Your task to perform on an android device: Go to Yahoo.com Image 0: 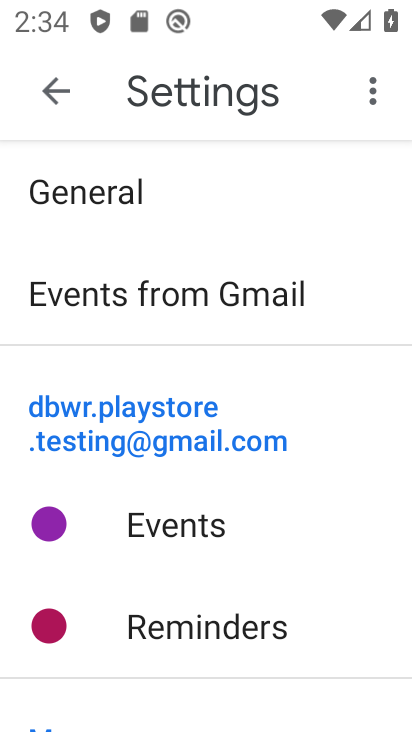
Step 0: press home button
Your task to perform on an android device: Go to Yahoo.com Image 1: 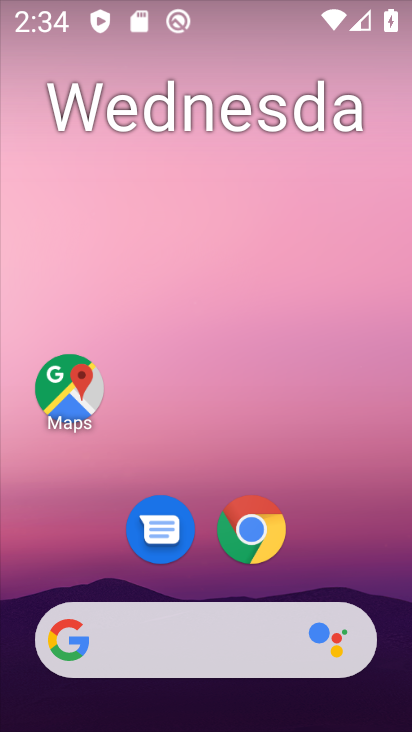
Step 1: click (241, 521)
Your task to perform on an android device: Go to Yahoo.com Image 2: 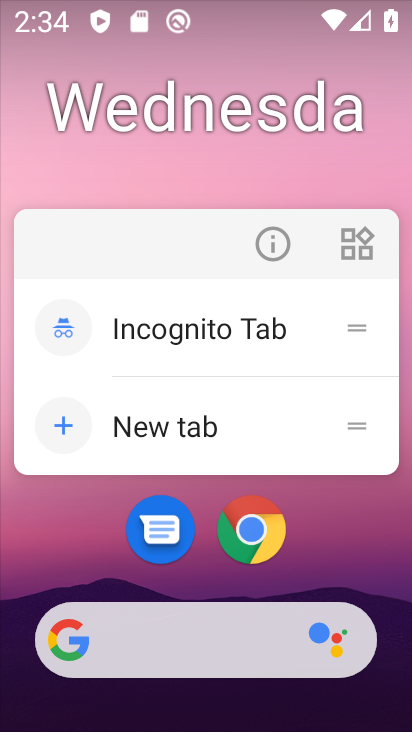
Step 2: click (239, 513)
Your task to perform on an android device: Go to Yahoo.com Image 3: 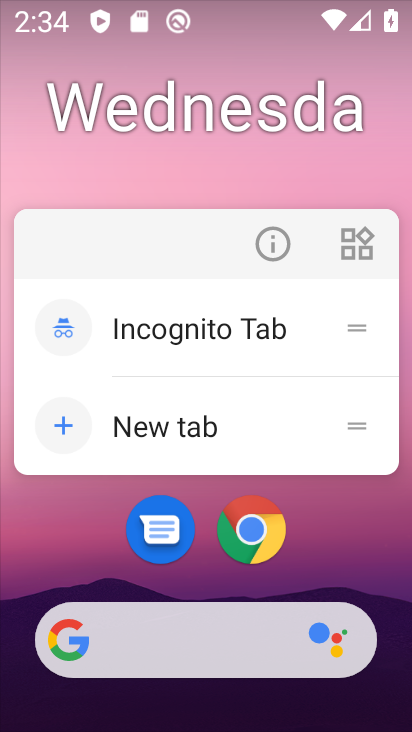
Step 3: click (239, 512)
Your task to perform on an android device: Go to Yahoo.com Image 4: 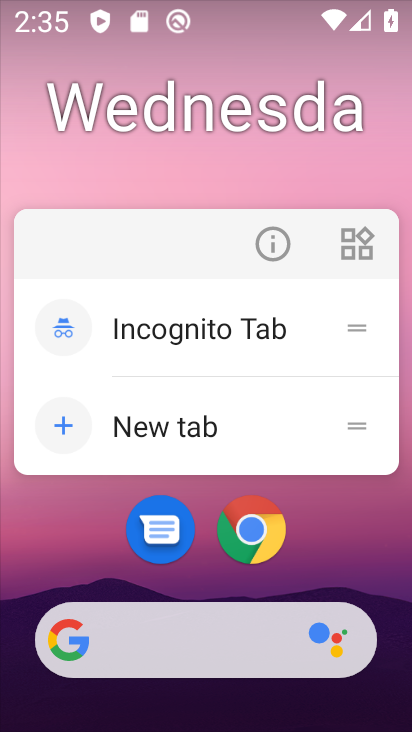
Step 4: click (241, 505)
Your task to perform on an android device: Go to Yahoo.com Image 5: 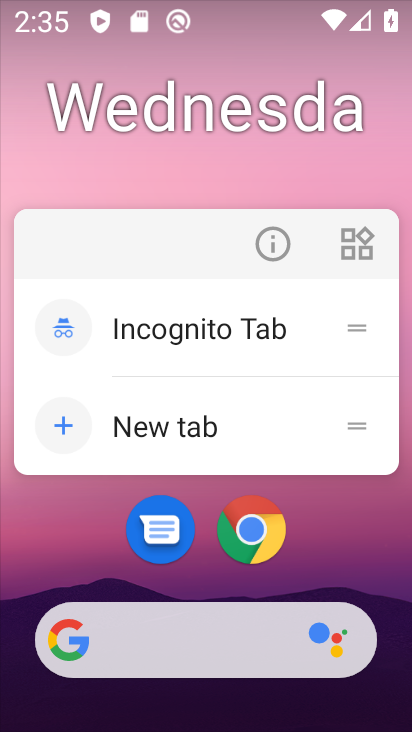
Step 5: click (243, 508)
Your task to perform on an android device: Go to Yahoo.com Image 6: 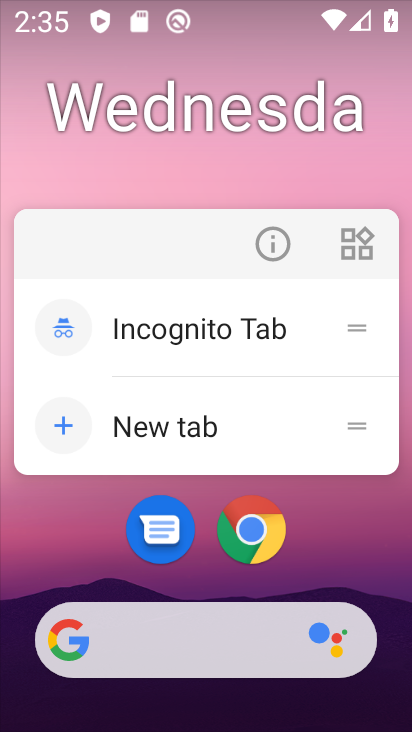
Step 6: click (243, 508)
Your task to perform on an android device: Go to Yahoo.com Image 7: 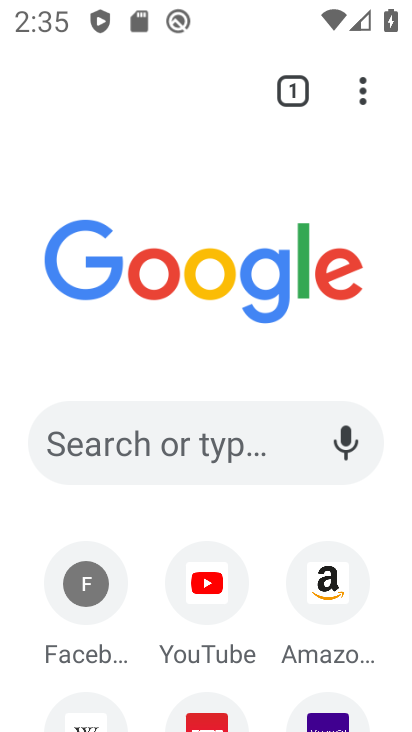
Step 7: click (215, 435)
Your task to perform on an android device: Go to Yahoo.com Image 8: 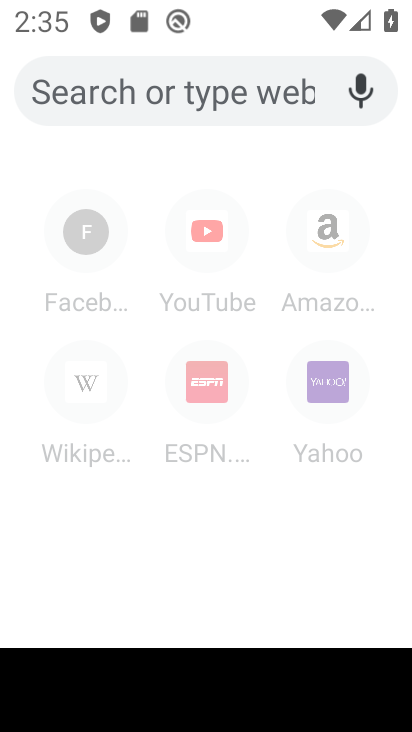
Step 8: click (319, 386)
Your task to perform on an android device: Go to Yahoo.com Image 9: 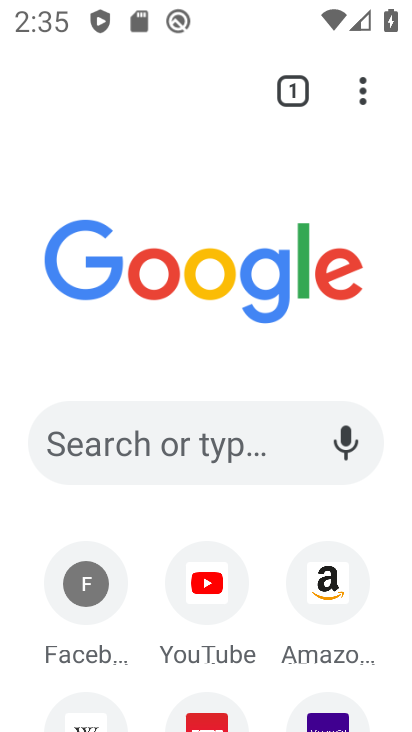
Step 9: click (324, 714)
Your task to perform on an android device: Go to Yahoo.com Image 10: 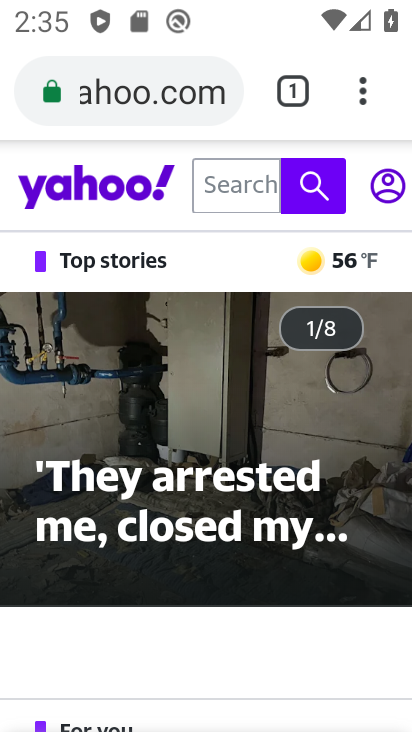
Step 10: task complete